Your task to perform on an android device: turn on showing notifications on the lock screen Image 0: 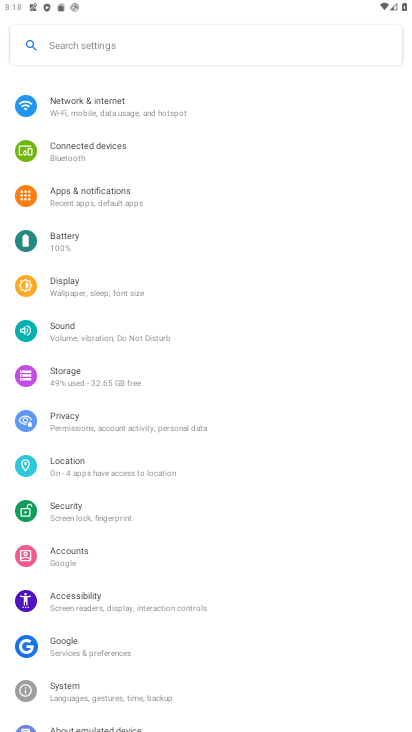
Step 0: press home button
Your task to perform on an android device: turn on showing notifications on the lock screen Image 1: 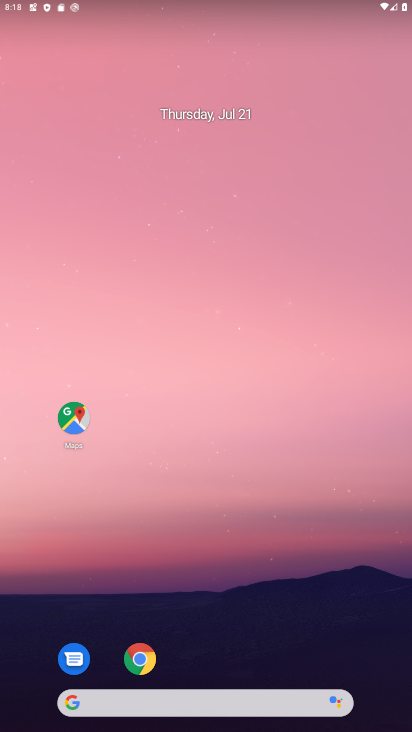
Step 1: drag from (213, 659) to (255, 151)
Your task to perform on an android device: turn on showing notifications on the lock screen Image 2: 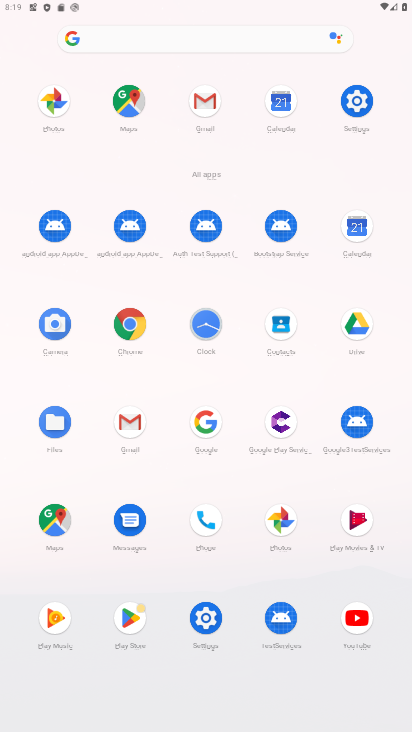
Step 2: click (351, 94)
Your task to perform on an android device: turn on showing notifications on the lock screen Image 3: 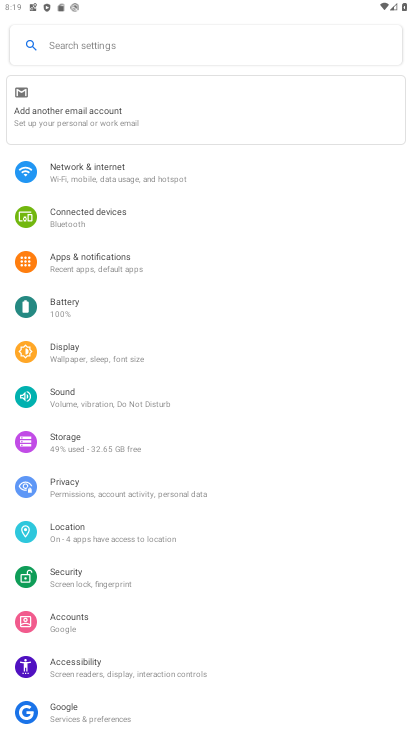
Step 3: click (139, 253)
Your task to perform on an android device: turn on showing notifications on the lock screen Image 4: 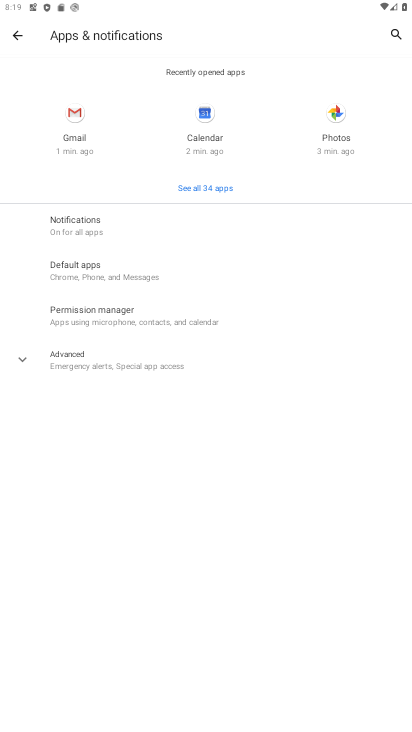
Step 4: click (108, 217)
Your task to perform on an android device: turn on showing notifications on the lock screen Image 5: 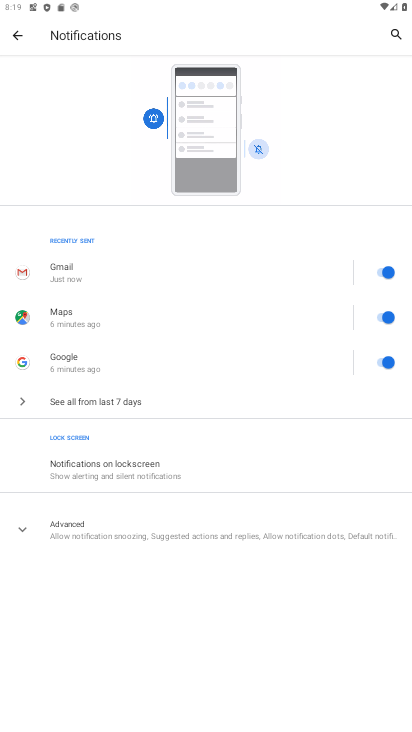
Step 5: click (194, 468)
Your task to perform on an android device: turn on showing notifications on the lock screen Image 6: 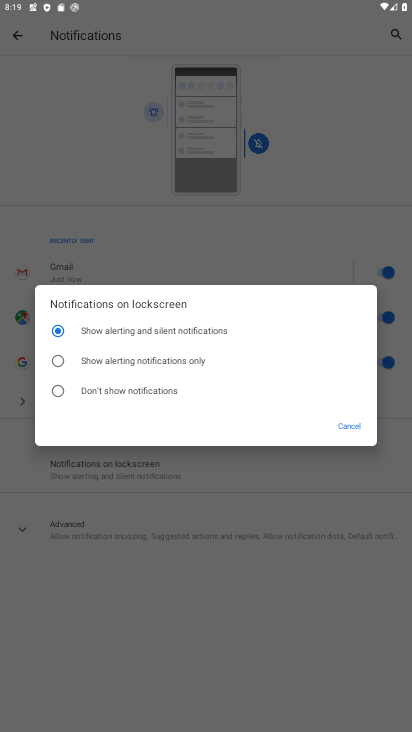
Step 6: click (58, 359)
Your task to perform on an android device: turn on showing notifications on the lock screen Image 7: 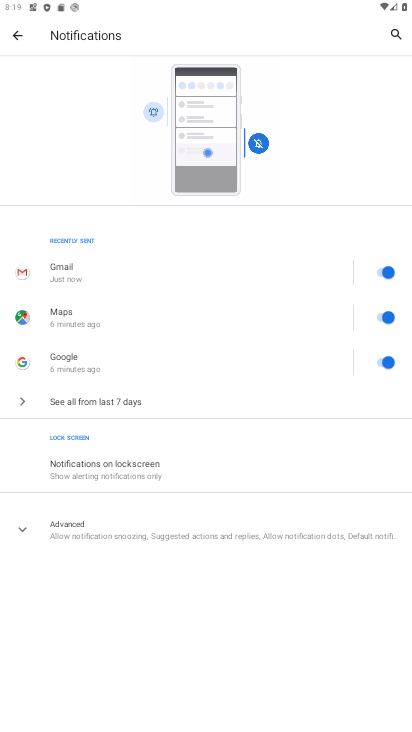
Step 7: task complete